Your task to perform on an android device: move an email to a new category in the gmail app Image 0: 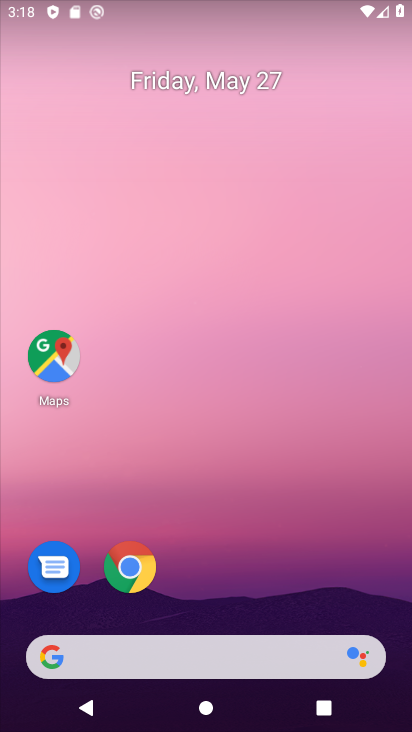
Step 0: drag from (377, 600) to (257, 7)
Your task to perform on an android device: move an email to a new category in the gmail app Image 1: 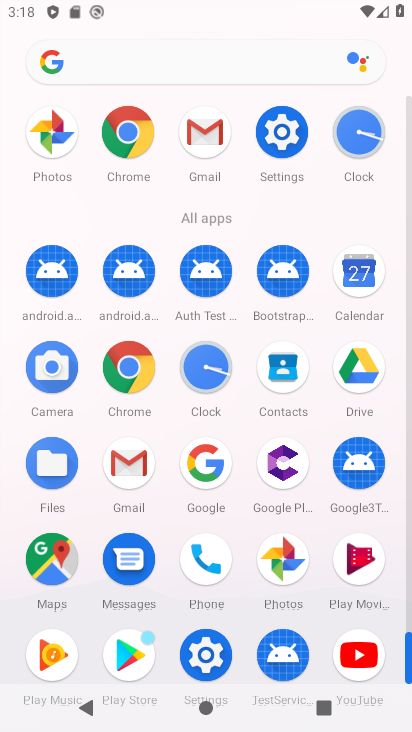
Step 1: click (126, 461)
Your task to perform on an android device: move an email to a new category in the gmail app Image 2: 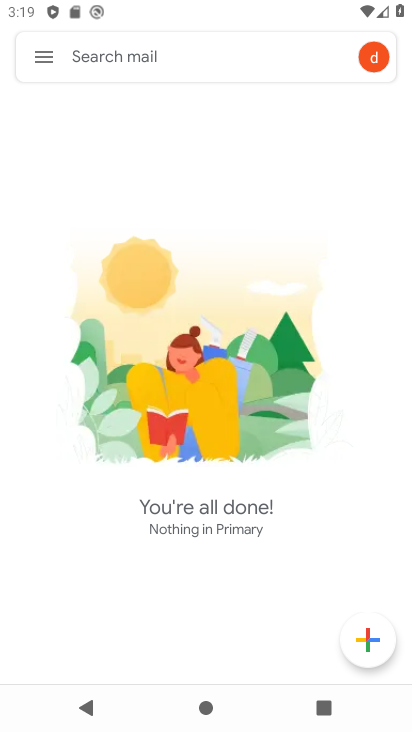
Step 2: click (46, 53)
Your task to perform on an android device: move an email to a new category in the gmail app Image 3: 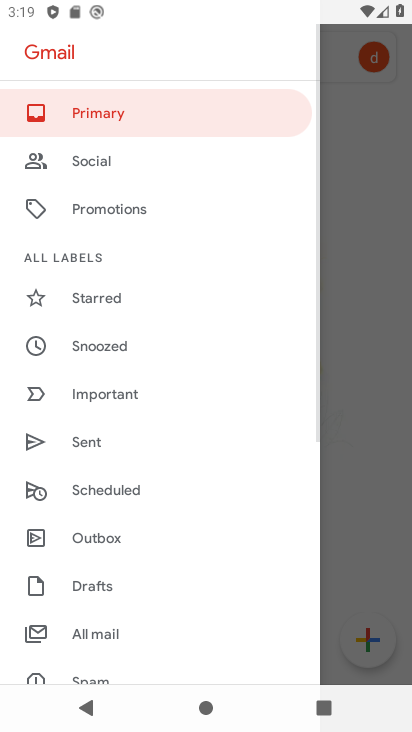
Step 3: drag from (186, 482) to (175, 221)
Your task to perform on an android device: move an email to a new category in the gmail app Image 4: 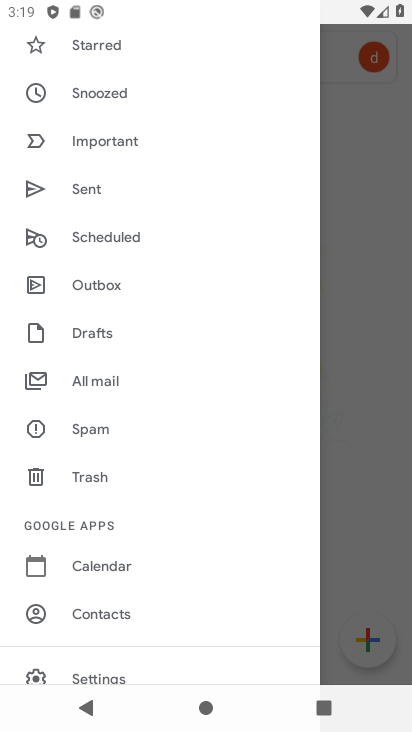
Step 4: click (91, 384)
Your task to perform on an android device: move an email to a new category in the gmail app Image 5: 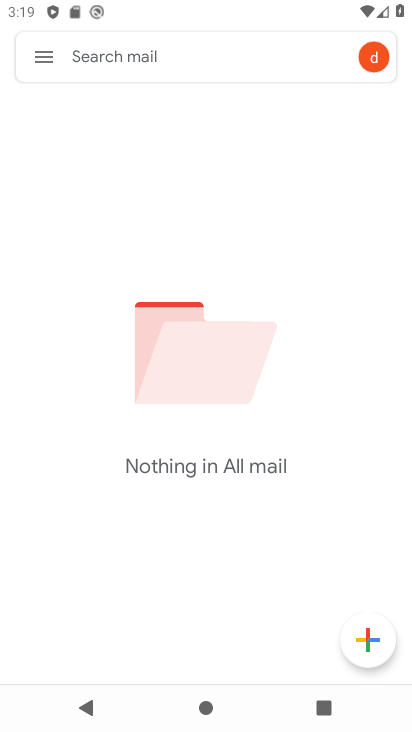
Step 5: task complete